Your task to perform on an android device: turn off wifi Image 0: 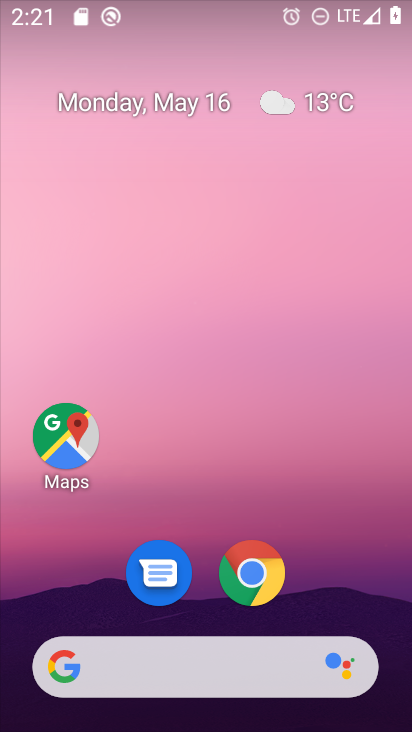
Step 0: drag from (218, 18) to (319, 495)
Your task to perform on an android device: turn off wifi Image 1: 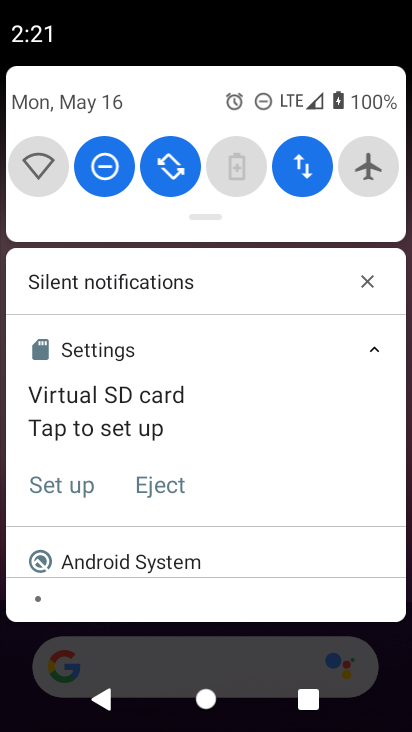
Step 1: click (156, 205)
Your task to perform on an android device: turn off wifi Image 2: 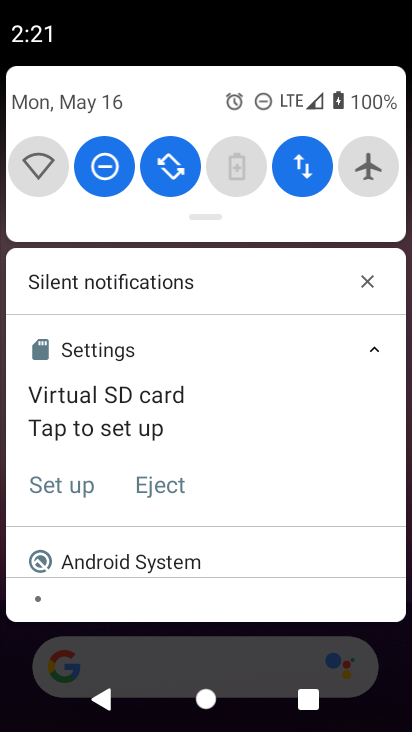
Step 2: task complete